Your task to perform on an android device: open the mobile data screen to see how much data has been used Image 0: 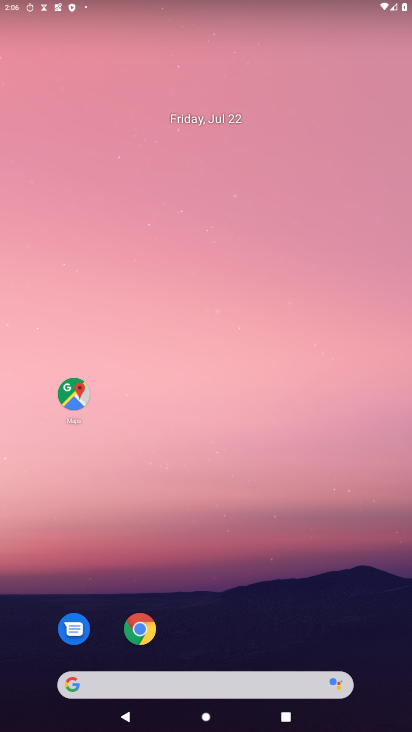
Step 0: drag from (325, 706) to (190, 52)
Your task to perform on an android device: open the mobile data screen to see how much data has been used Image 1: 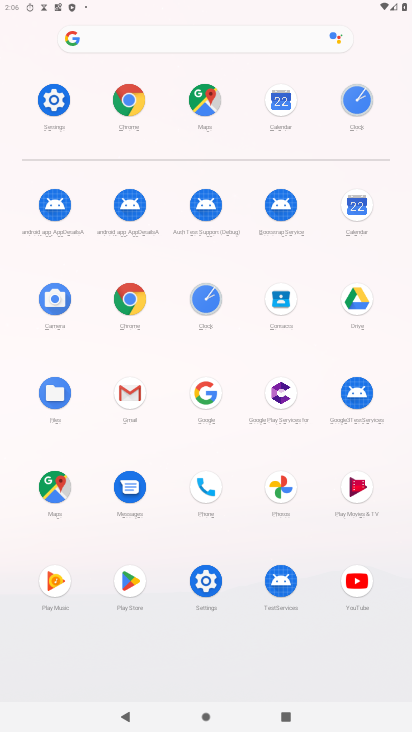
Step 1: click (42, 97)
Your task to perform on an android device: open the mobile data screen to see how much data has been used Image 2: 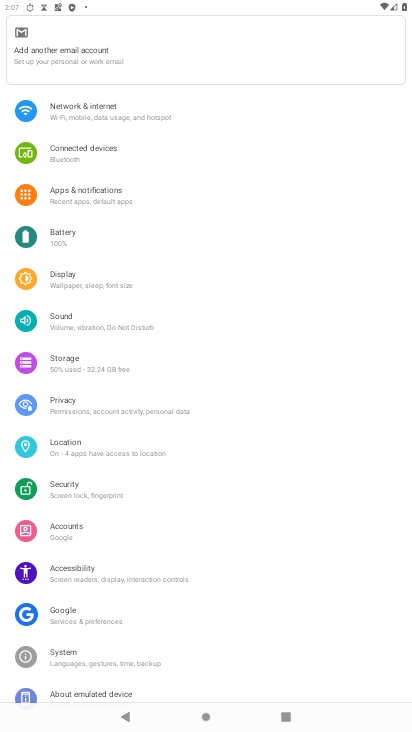
Step 2: click (124, 107)
Your task to perform on an android device: open the mobile data screen to see how much data has been used Image 3: 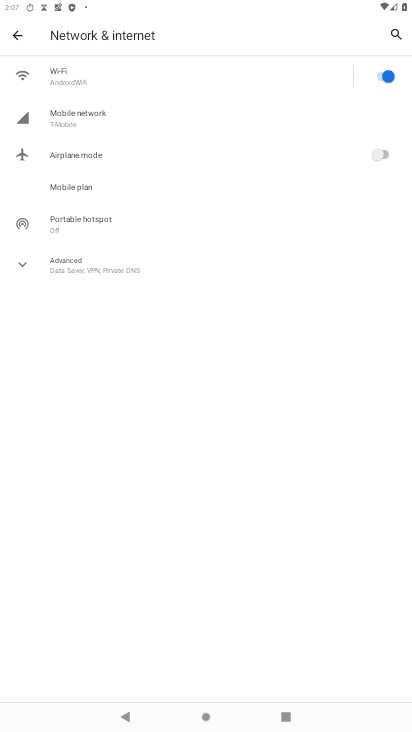
Step 3: click (101, 125)
Your task to perform on an android device: open the mobile data screen to see how much data has been used Image 4: 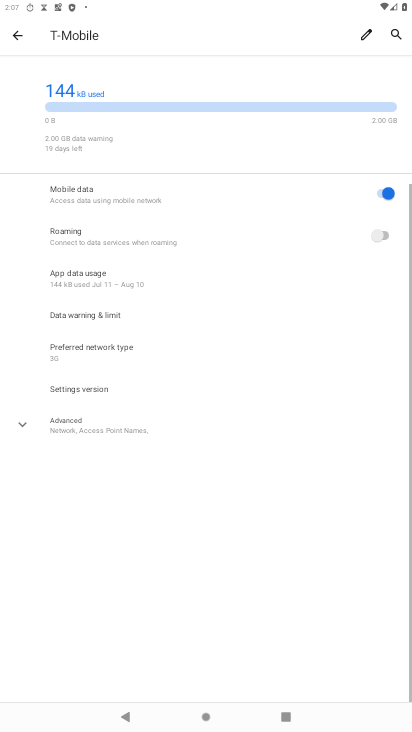
Step 4: task complete